Your task to perform on an android device: Search for pizza restaurants on Maps Image 0: 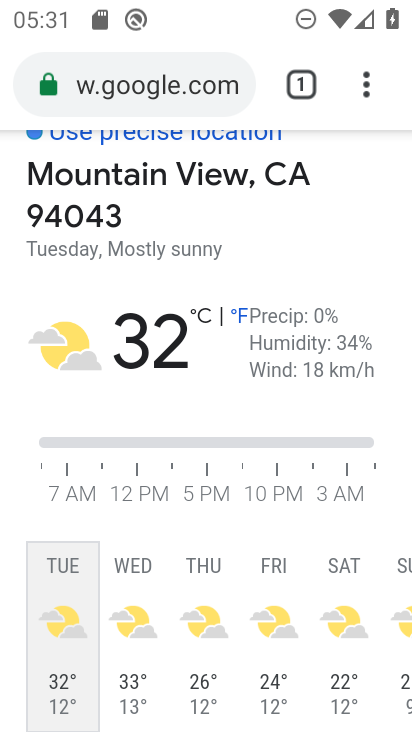
Step 0: press back button
Your task to perform on an android device: Search for pizza restaurants on Maps Image 1: 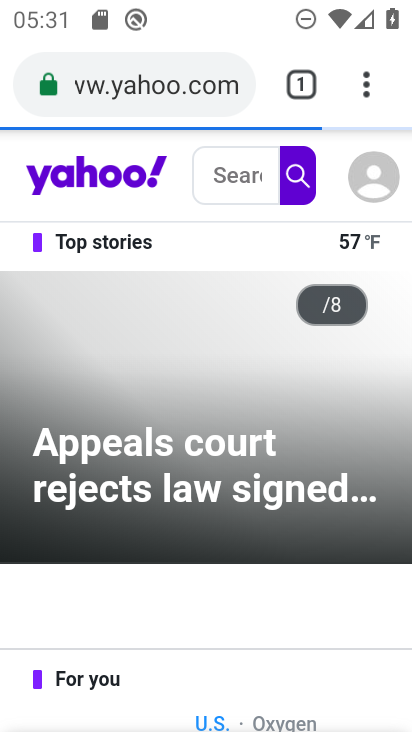
Step 1: press home button
Your task to perform on an android device: Search for pizza restaurants on Maps Image 2: 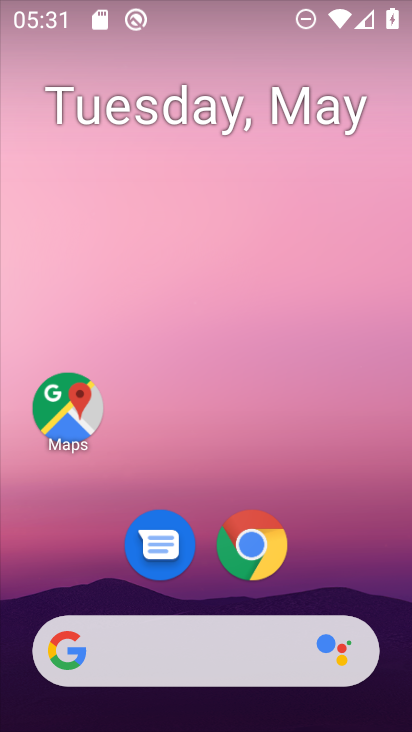
Step 2: click (63, 400)
Your task to perform on an android device: Search for pizza restaurants on Maps Image 3: 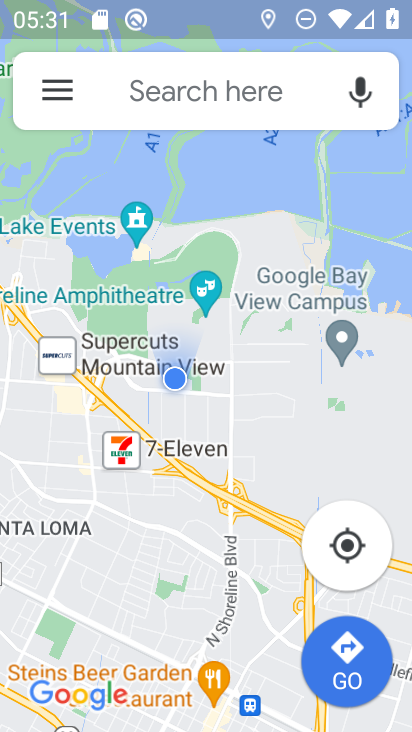
Step 3: click (108, 87)
Your task to perform on an android device: Search for pizza restaurants on Maps Image 4: 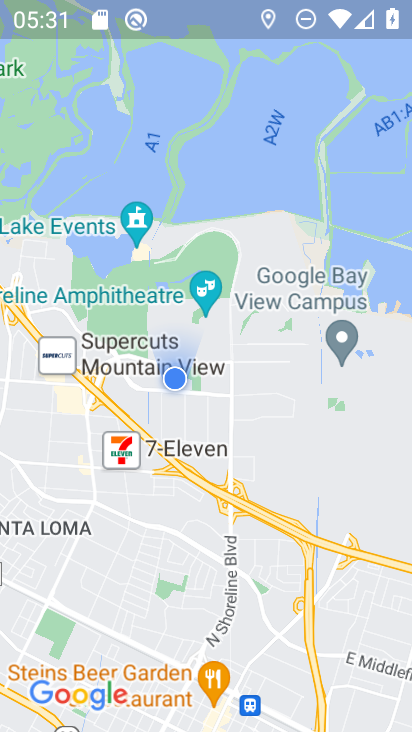
Step 4: click (244, 83)
Your task to perform on an android device: Search for pizza restaurants on Maps Image 5: 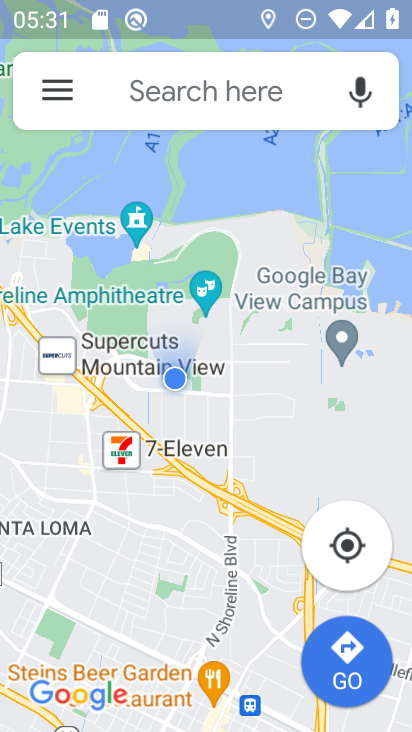
Step 5: click (291, 83)
Your task to perform on an android device: Search for pizza restaurants on Maps Image 6: 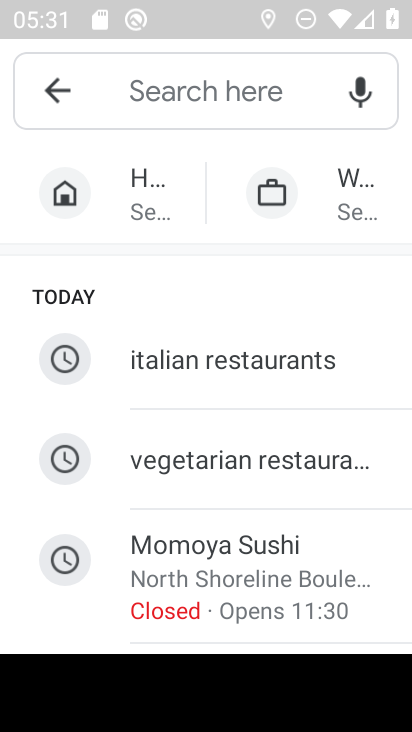
Step 6: type " pizza restaurants"
Your task to perform on an android device: Search for pizza restaurants on Maps Image 7: 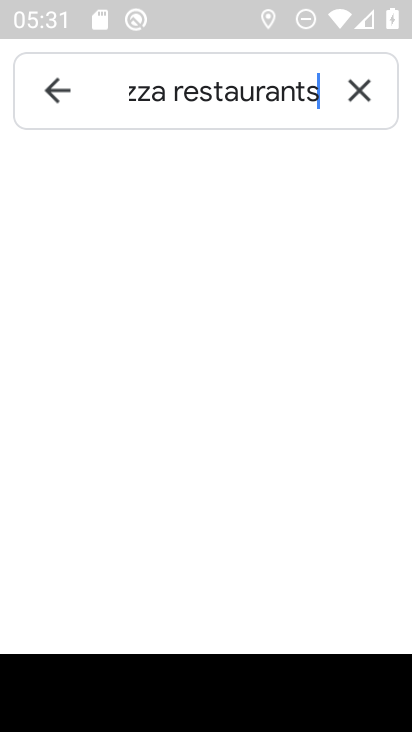
Step 7: type ""
Your task to perform on an android device: Search for pizza restaurants on Maps Image 8: 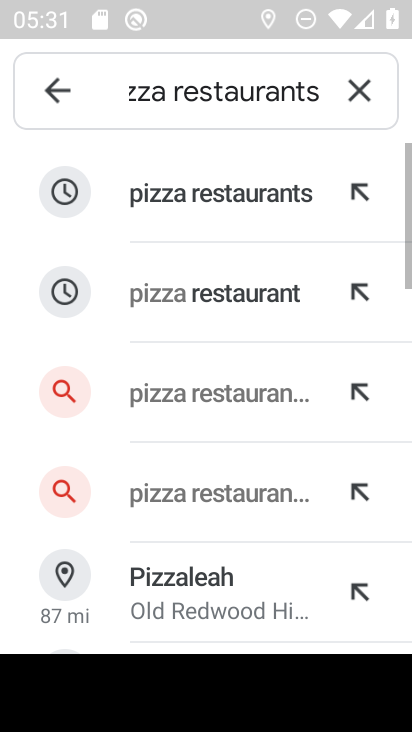
Step 8: click (198, 204)
Your task to perform on an android device: Search for pizza restaurants on Maps Image 9: 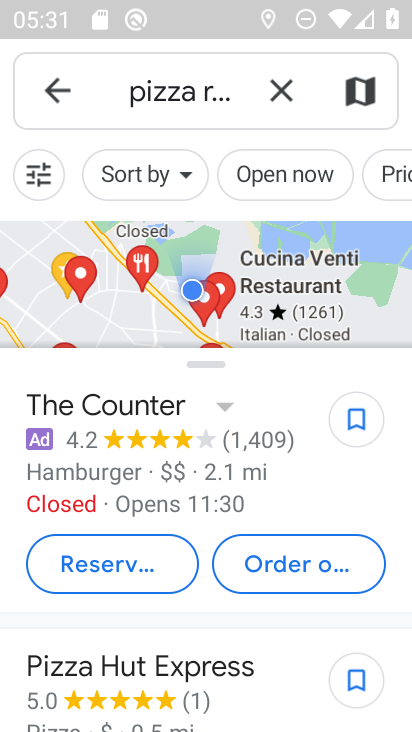
Step 9: task complete